Your task to perform on an android device: What's the weather going to be tomorrow? Image 0: 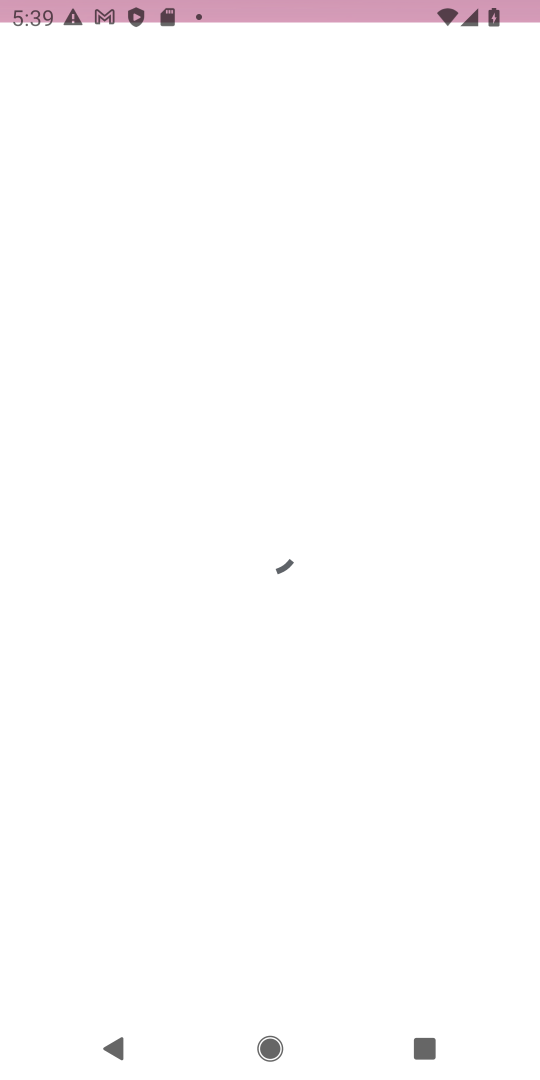
Step 0: drag from (364, 795) to (334, 0)
Your task to perform on an android device: What's the weather going to be tomorrow? Image 1: 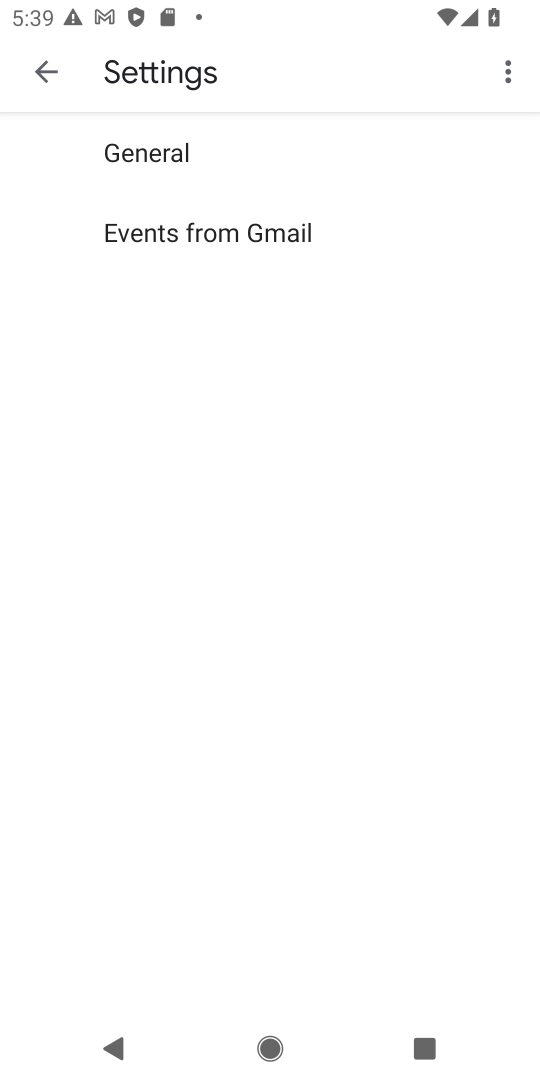
Step 1: press home button
Your task to perform on an android device: What's the weather going to be tomorrow? Image 2: 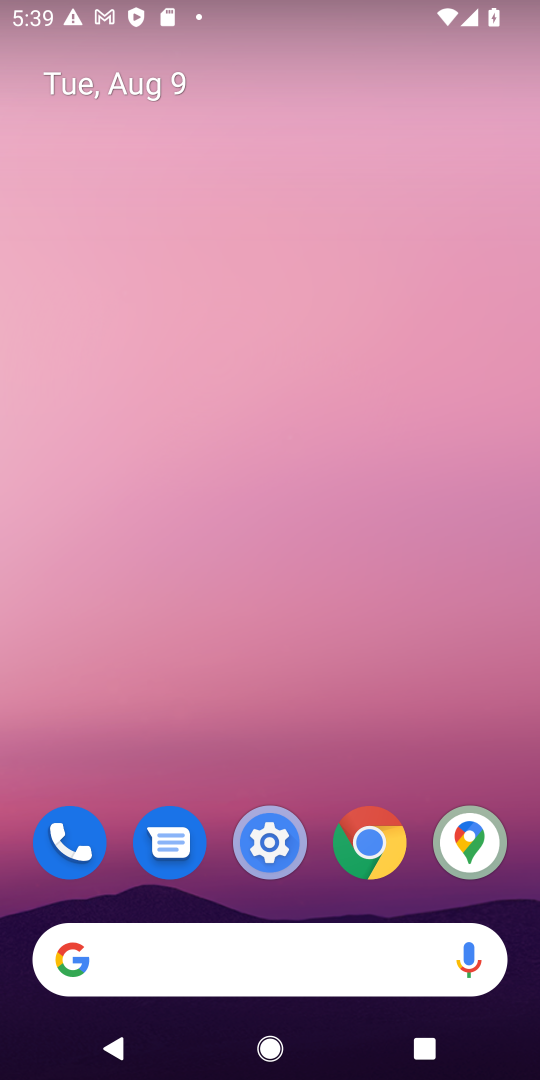
Step 2: drag from (315, 900) to (336, 55)
Your task to perform on an android device: What's the weather going to be tomorrow? Image 3: 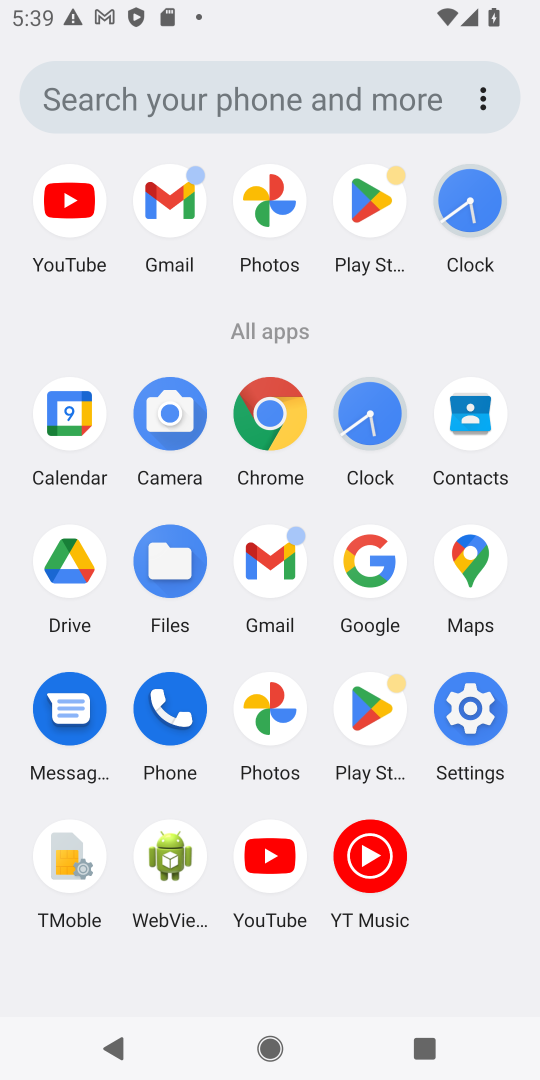
Step 3: click (355, 571)
Your task to perform on an android device: What's the weather going to be tomorrow? Image 4: 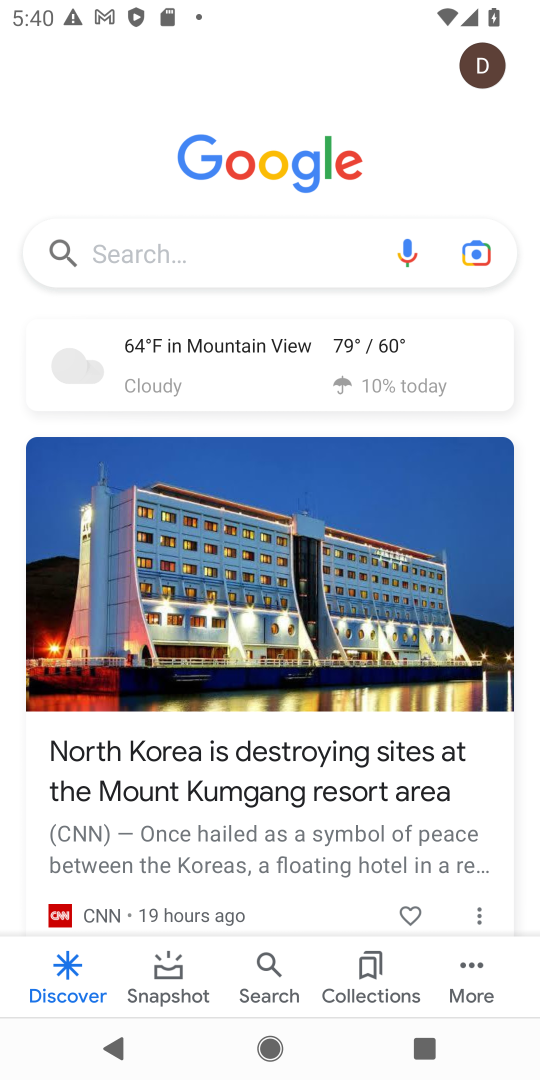
Step 4: click (240, 342)
Your task to perform on an android device: What's the weather going to be tomorrow? Image 5: 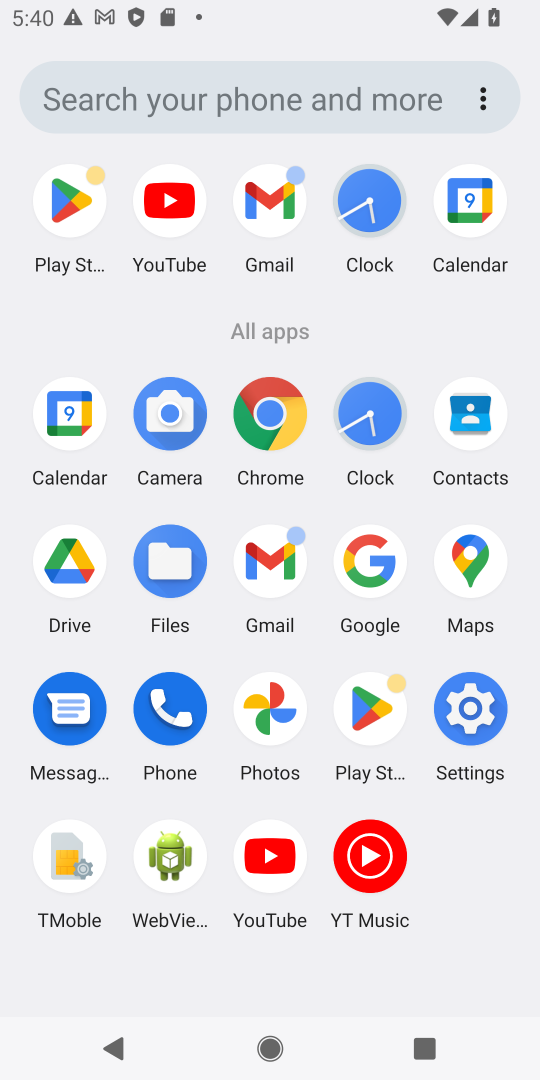
Step 5: click (368, 573)
Your task to perform on an android device: What's the weather going to be tomorrow? Image 6: 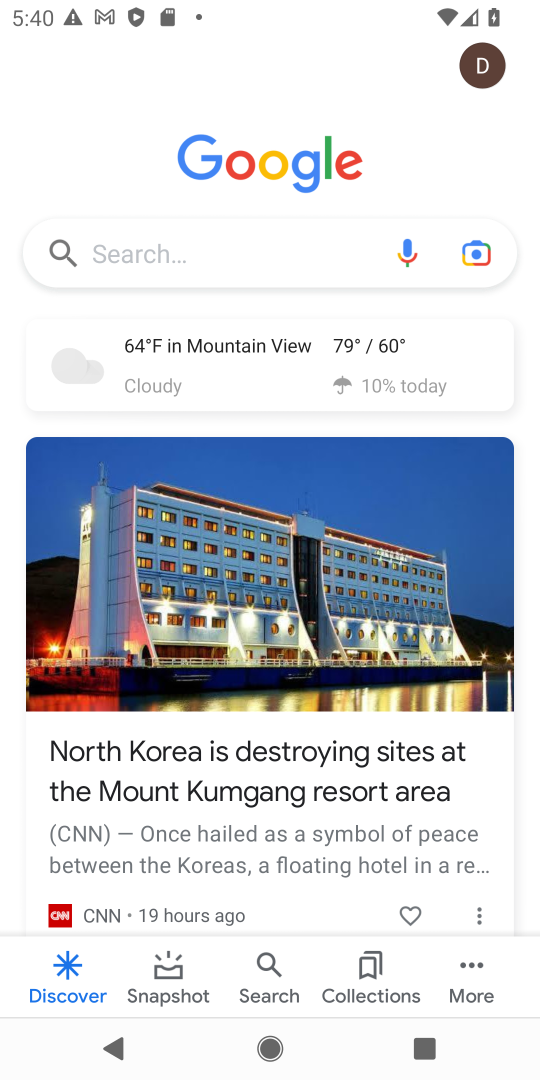
Step 6: click (236, 341)
Your task to perform on an android device: What's the weather going to be tomorrow? Image 7: 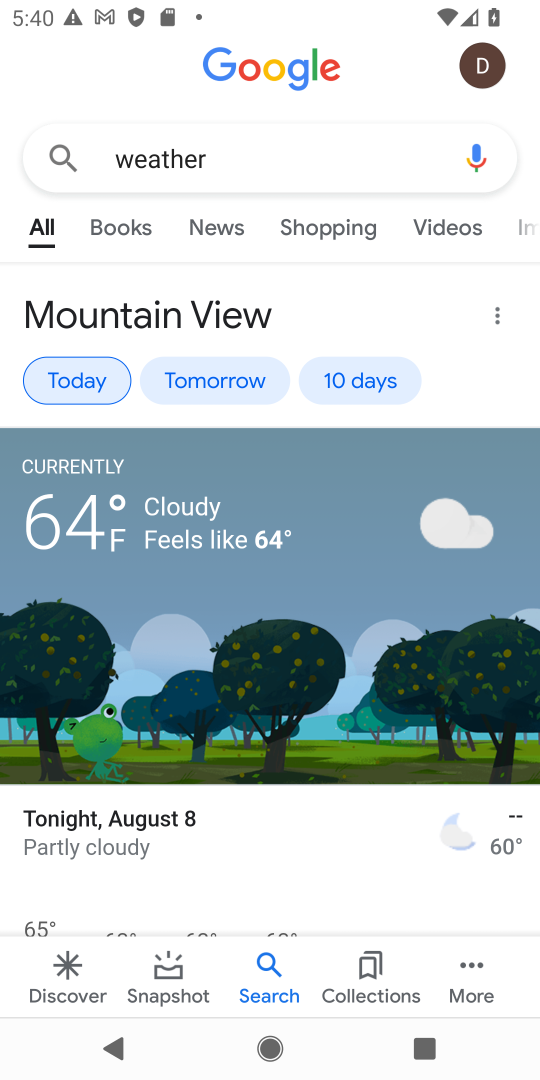
Step 7: click (233, 372)
Your task to perform on an android device: What's the weather going to be tomorrow? Image 8: 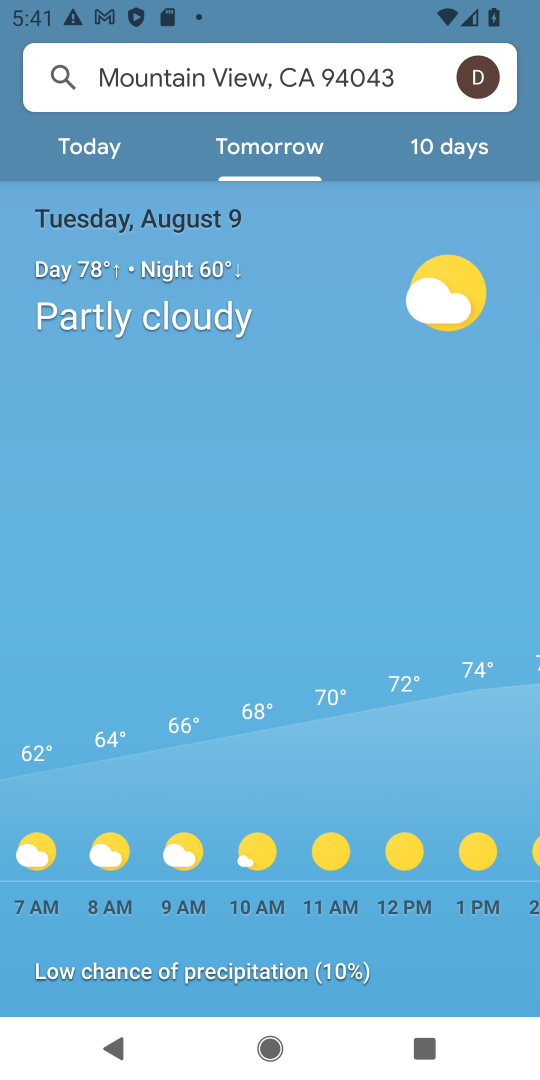
Step 8: task complete